Your task to perform on an android device: Do I have any events today? Image 0: 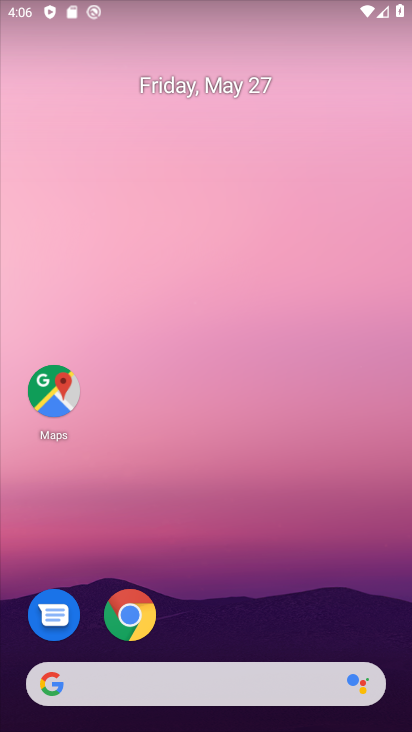
Step 0: drag from (265, 569) to (123, 14)
Your task to perform on an android device: Do I have any events today? Image 1: 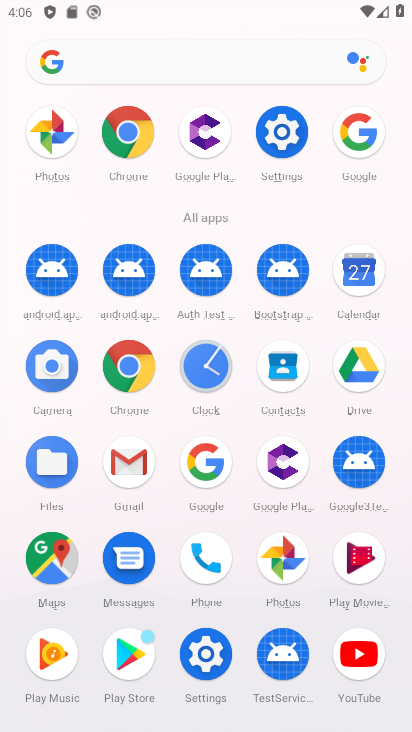
Step 1: click (352, 276)
Your task to perform on an android device: Do I have any events today? Image 2: 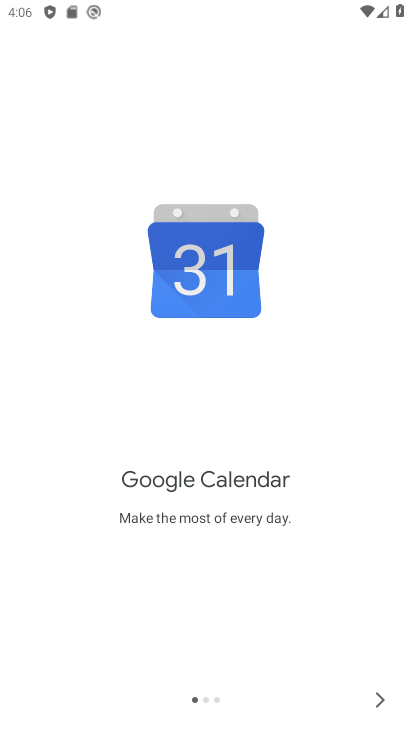
Step 2: click (377, 692)
Your task to perform on an android device: Do I have any events today? Image 3: 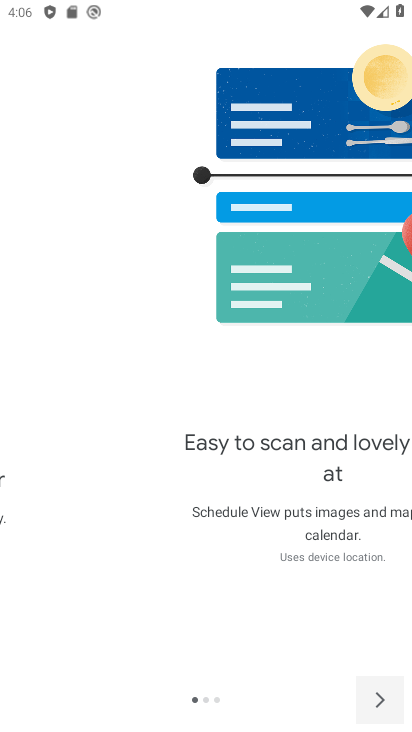
Step 3: click (376, 691)
Your task to perform on an android device: Do I have any events today? Image 4: 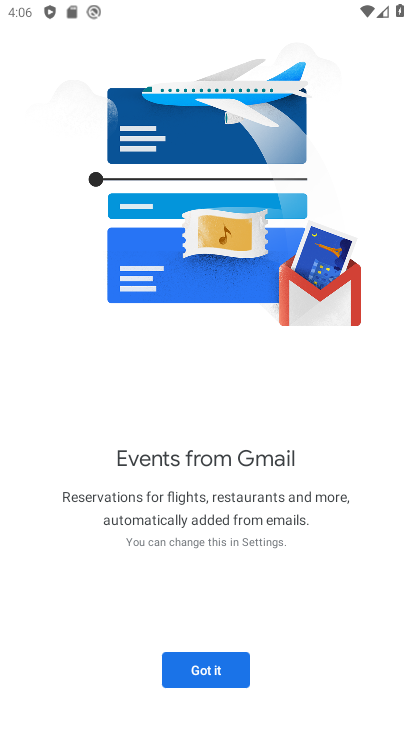
Step 4: click (224, 667)
Your task to perform on an android device: Do I have any events today? Image 5: 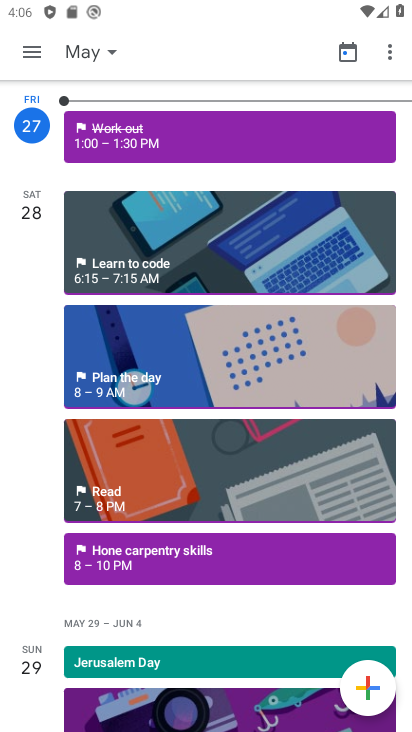
Step 5: task complete